Your task to perform on an android device: Do I have any events today? Image 0: 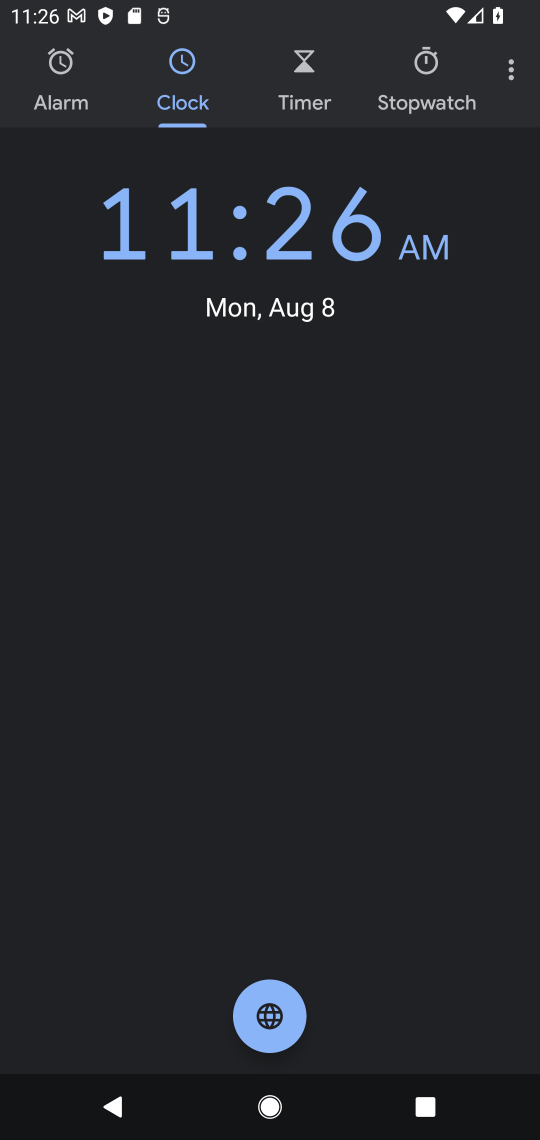
Step 0: press home button
Your task to perform on an android device: Do I have any events today? Image 1: 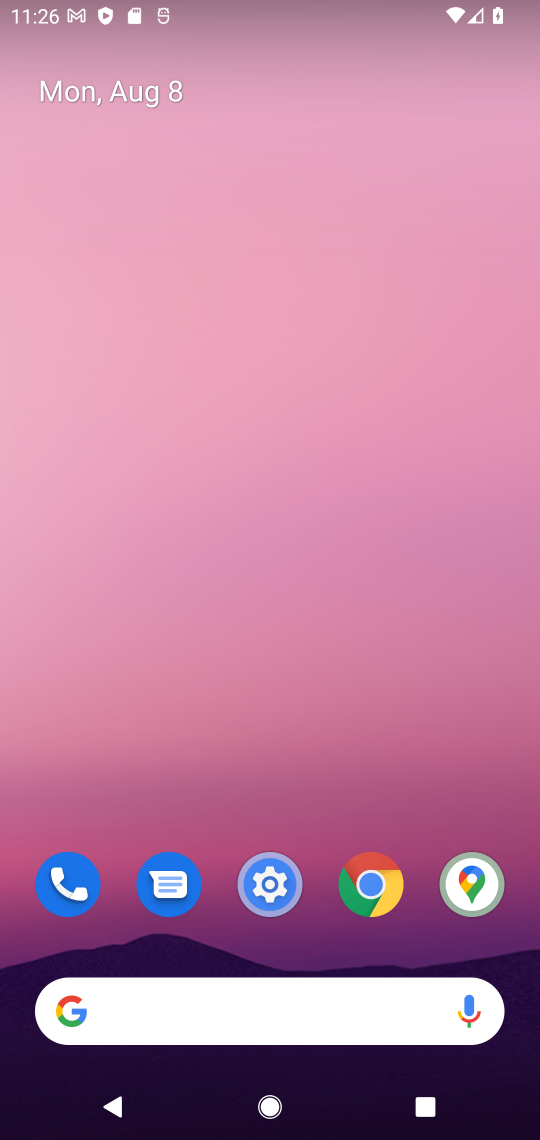
Step 1: drag from (236, 876) to (248, 60)
Your task to perform on an android device: Do I have any events today? Image 2: 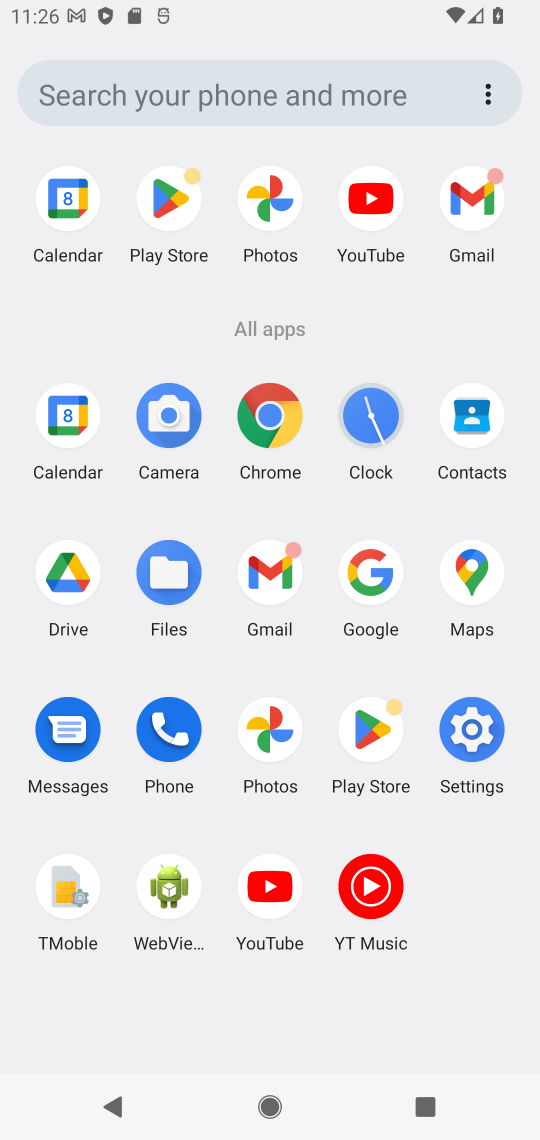
Step 2: click (77, 419)
Your task to perform on an android device: Do I have any events today? Image 3: 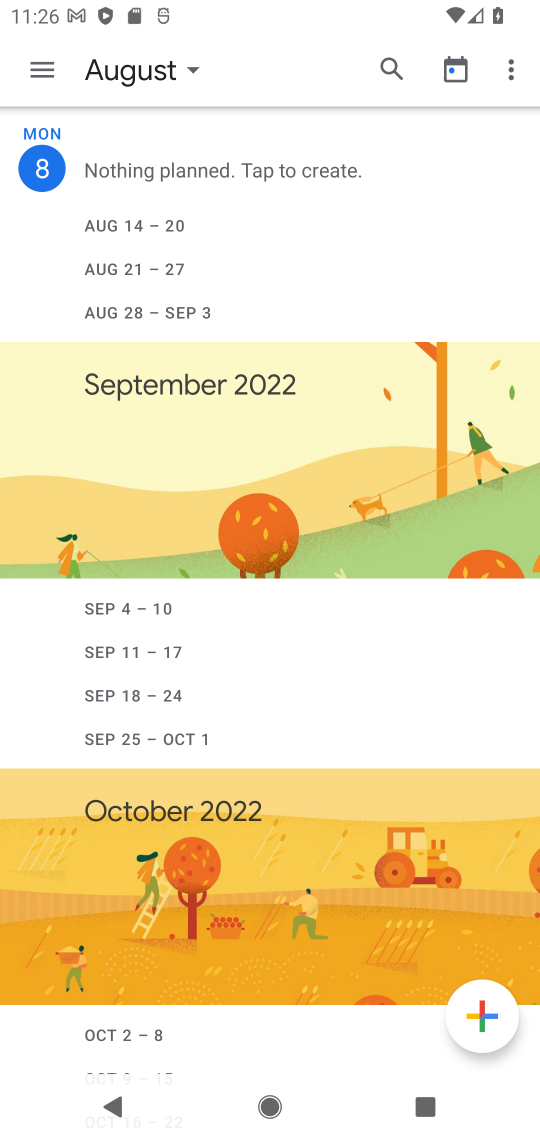
Step 3: click (44, 60)
Your task to perform on an android device: Do I have any events today? Image 4: 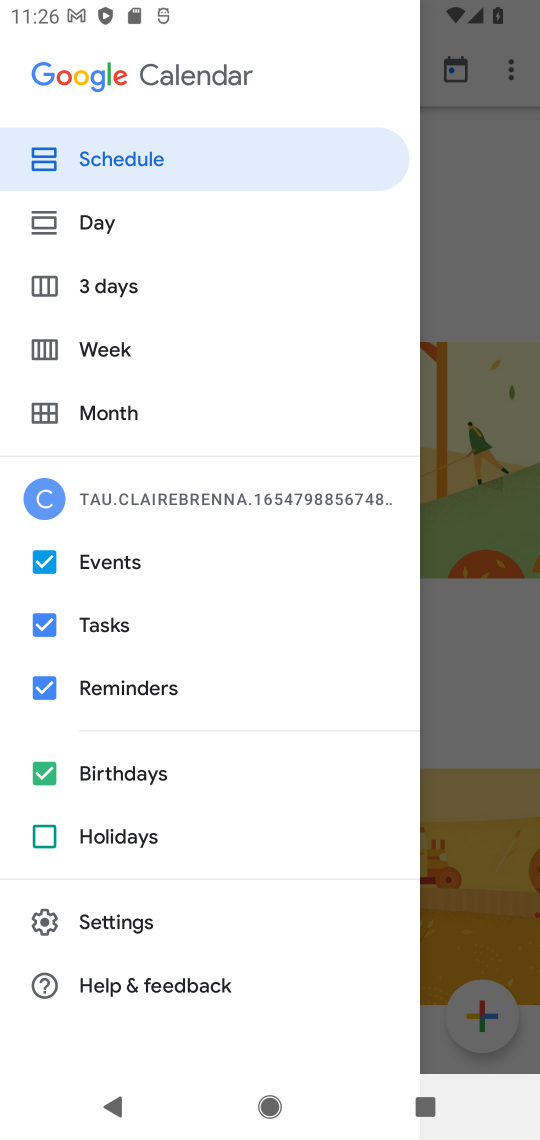
Step 4: click (76, 641)
Your task to perform on an android device: Do I have any events today? Image 5: 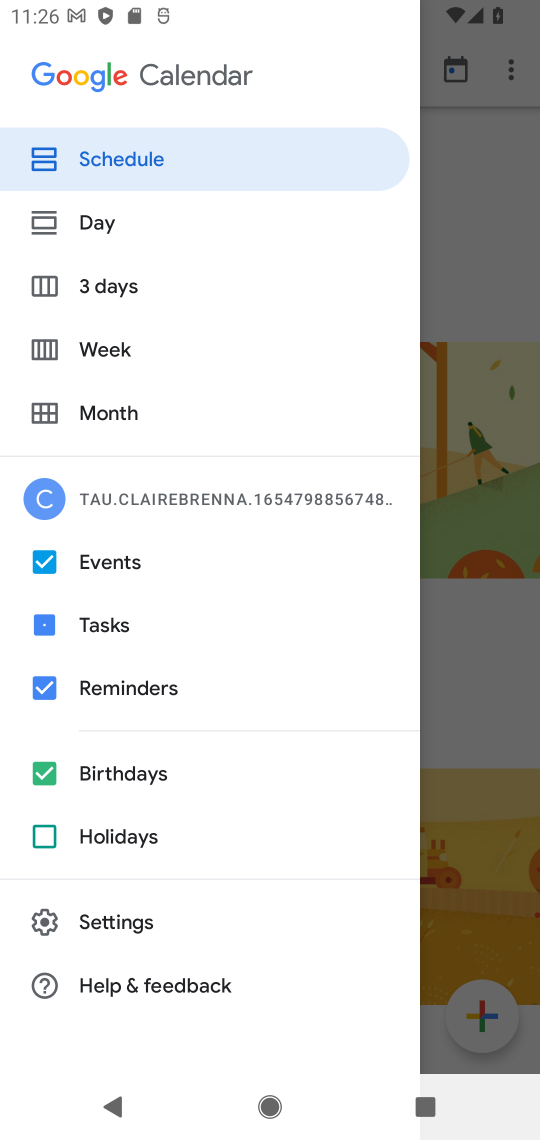
Step 5: click (84, 696)
Your task to perform on an android device: Do I have any events today? Image 6: 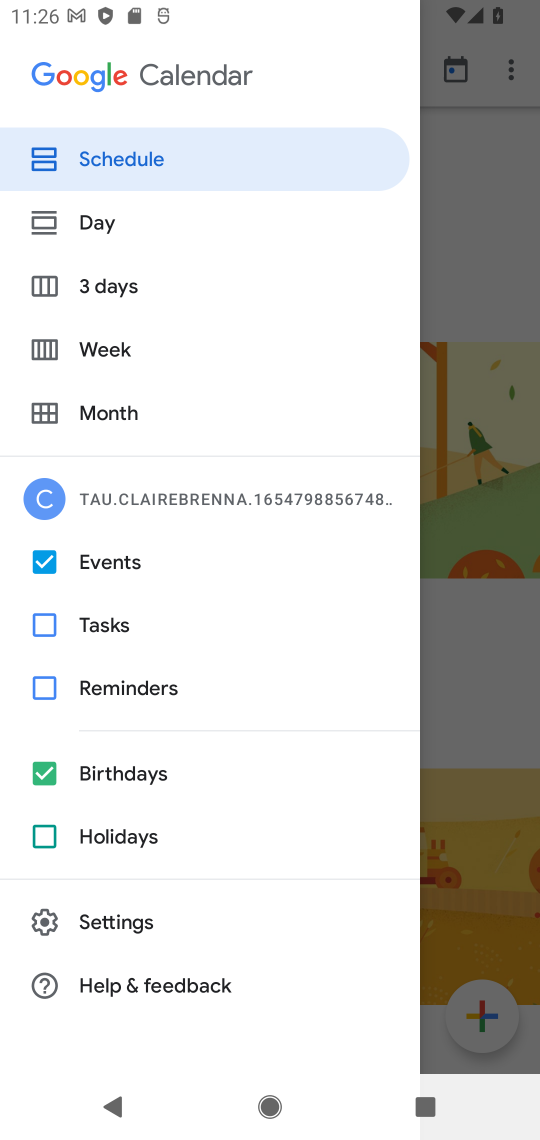
Step 6: click (90, 773)
Your task to perform on an android device: Do I have any events today? Image 7: 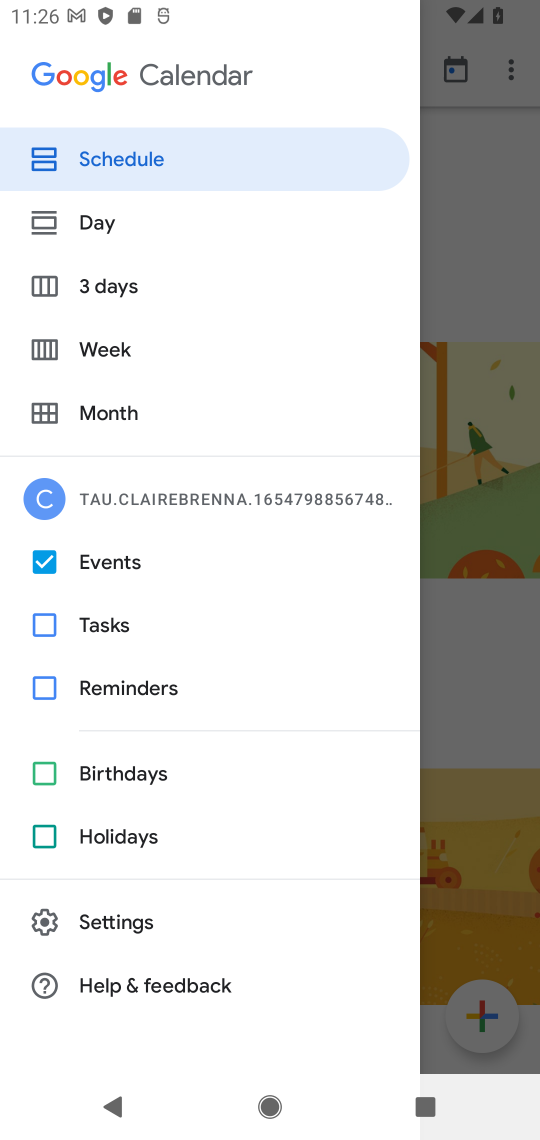
Step 7: click (118, 214)
Your task to perform on an android device: Do I have any events today? Image 8: 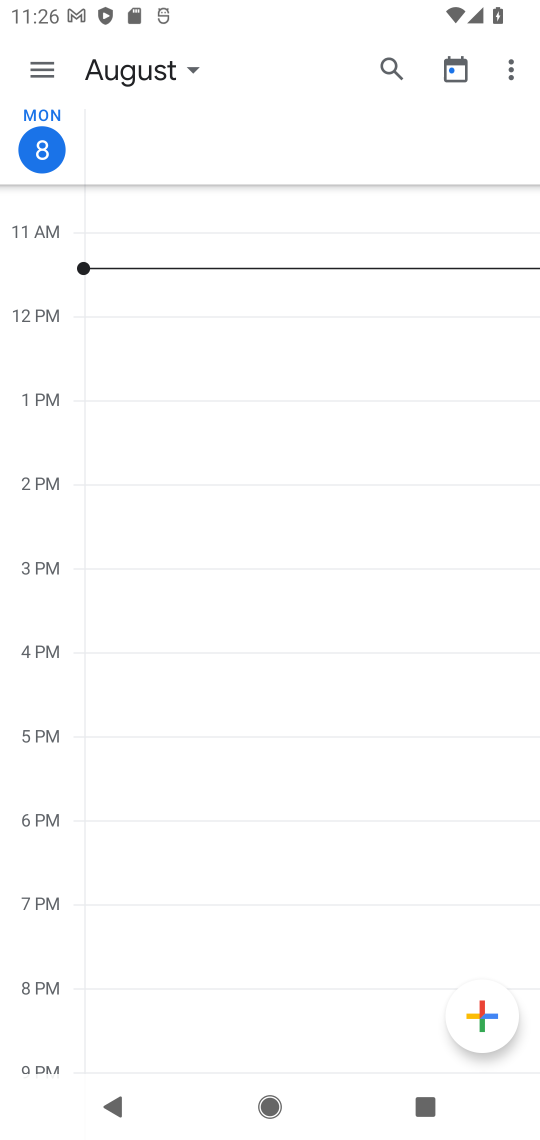
Step 8: task complete